Your task to perform on an android device: open the mobile data screen to see how much data has been used Image 0: 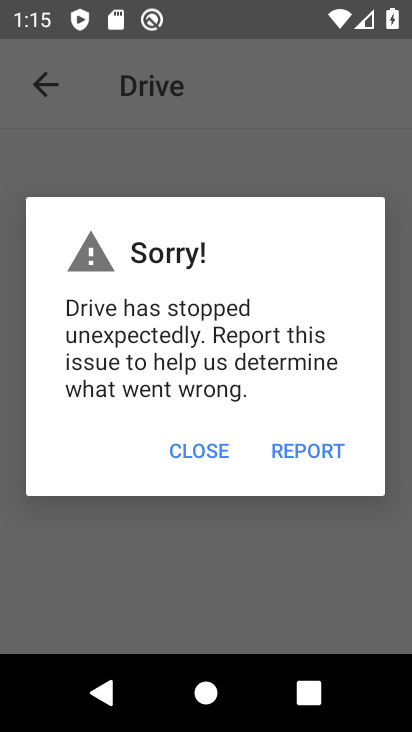
Step 0: press home button
Your task to perform on an android device: open the mobile data screen to see how much data has been used Image 1: 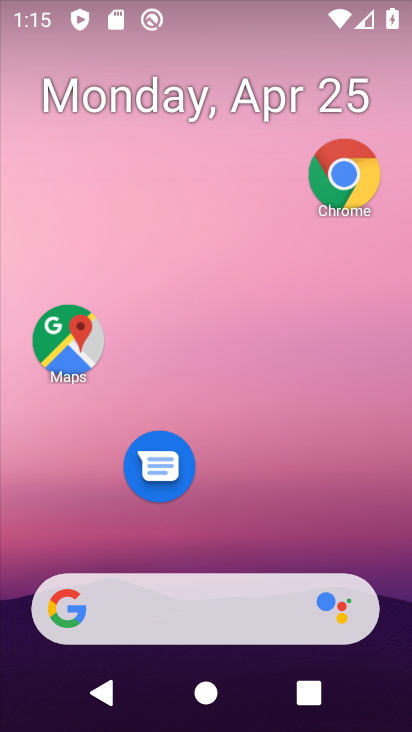
Step 1: drag from (265, 503) to (292, 94)
Your task to perform on an android device: open the mobile data screen to see how much data has been used Image 2: 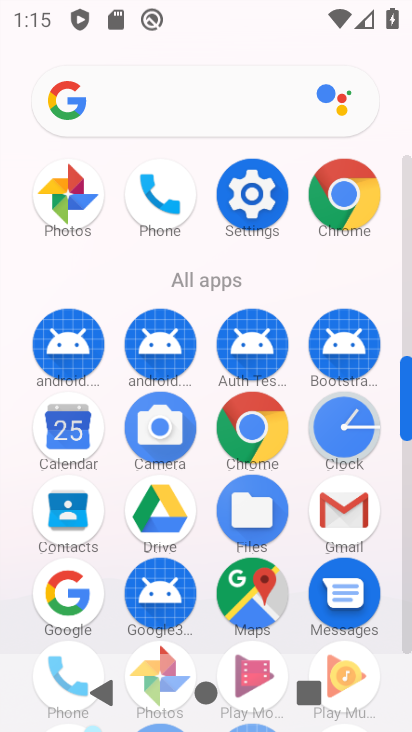
Step 2: click (242, 192)
Your task to perform on an android device: open the mobile data screen to see how much data has been used Image 3: 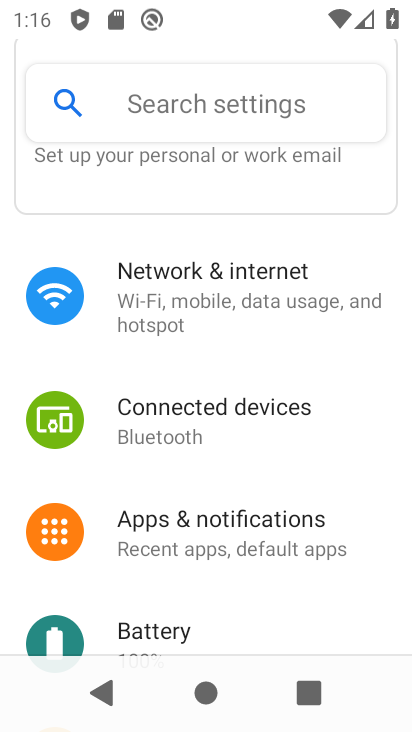
Step 3: click (175, 321)
Your task to perform on an android device: open the mobile data screen to see how much data has been used Image 4: 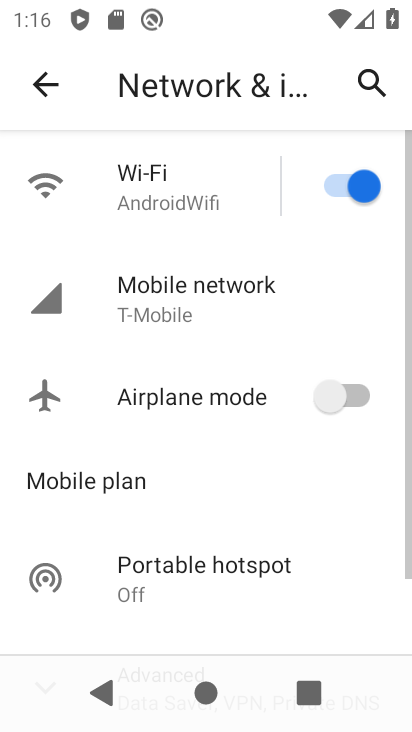
Step 4: click (175, 321)
Your task to perform on an android device: open the mobile data screen to see how much data has been used Image 5: 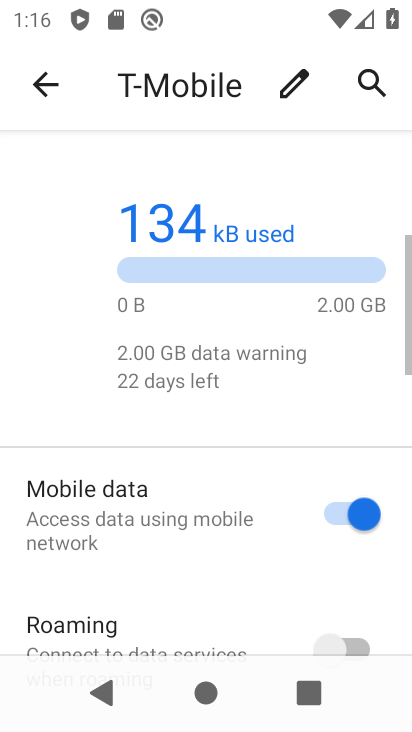
Step 5: drag from (168, 516) to (163, 331)
Your task to perform on an android device: open the mobile data screen to see how much data has been used Image 6: 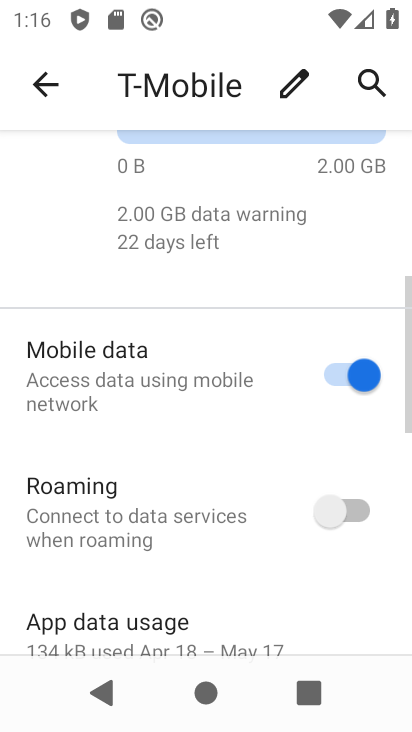
Step 6: drag from (185, 446) to (219, 258)
Your task to perform on an android device: open the mobile data screen to see how much data has been used Image 7: 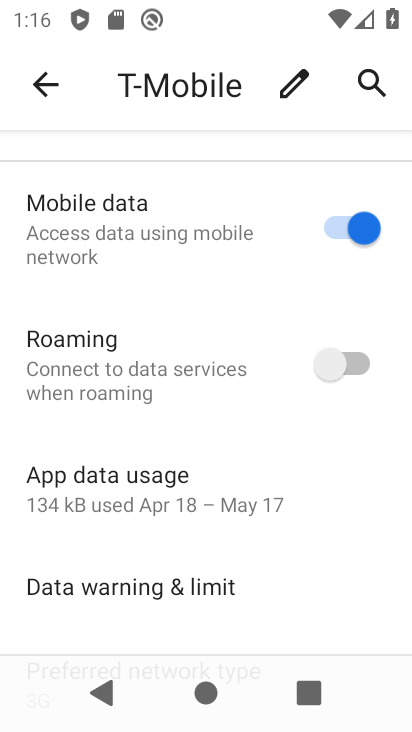
Step 7: drag from (113, 537) to (72, 331)
Your task to perform on an android device: open the mobile data screen to see how much data has been used Image 8: 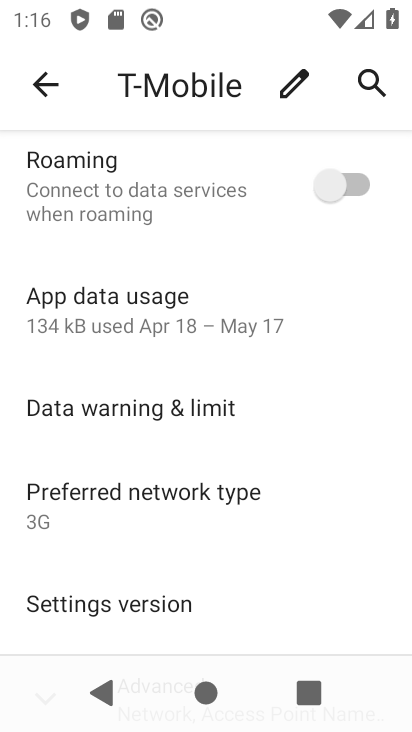
Step 8: click (100, 340)
Your task to perform on an android device: open the mobile data screen to see how much data has been used Image 9: 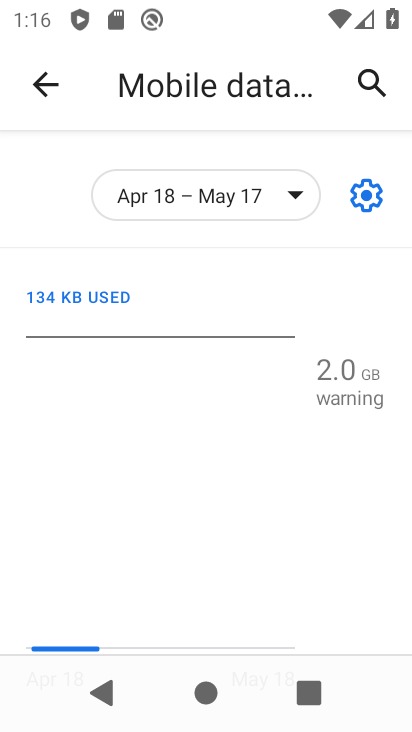
Step 9: task complete